Your task to perform on an android device: Open Chrome and go to settings Image 0: 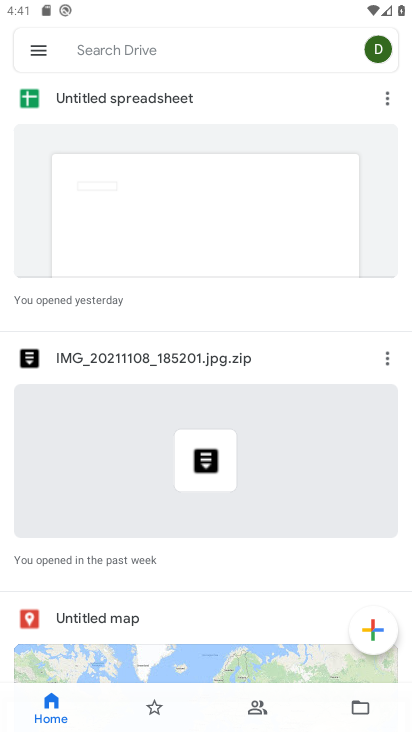
Step 0: press back button
Your task to perform on an android device: Open Chrome and go to settings Image 1: 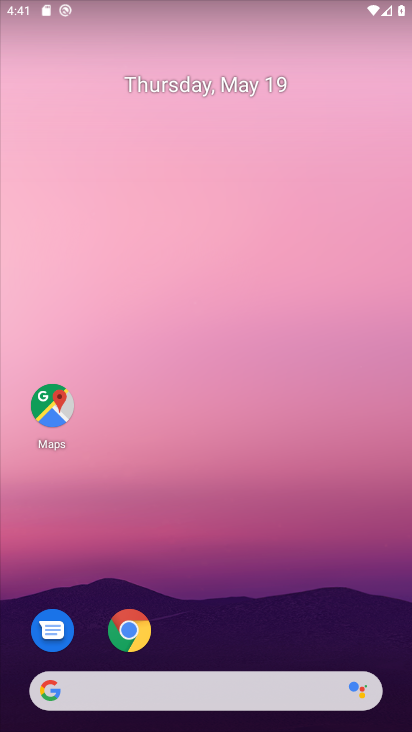
Step 1: drag from (290, 554) to (256, 28)
Your task to perform on an android device: Open Chrome and go to settings Image 2: 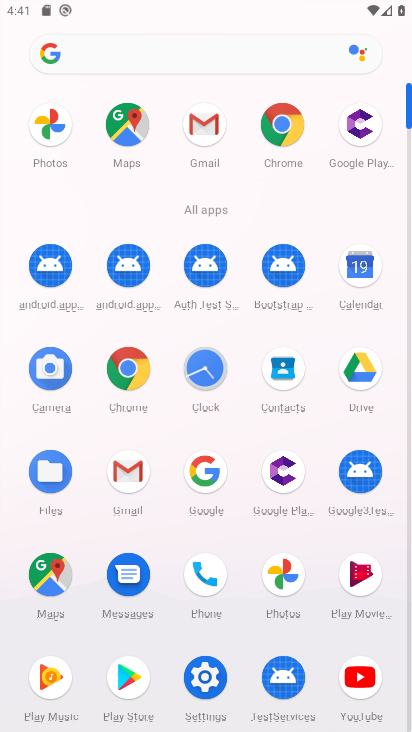
Step 2: drag from (6, 589) to (12, 259)
Your task to perform on an android device: Open Chrome and go to settings Image 3: 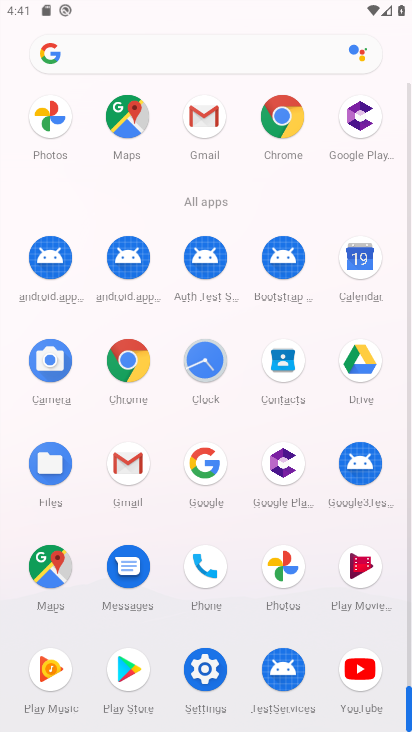
Step 3: click (282, 120)
Your task to perform on an android device: Open Chrome and go to settings Image 4: 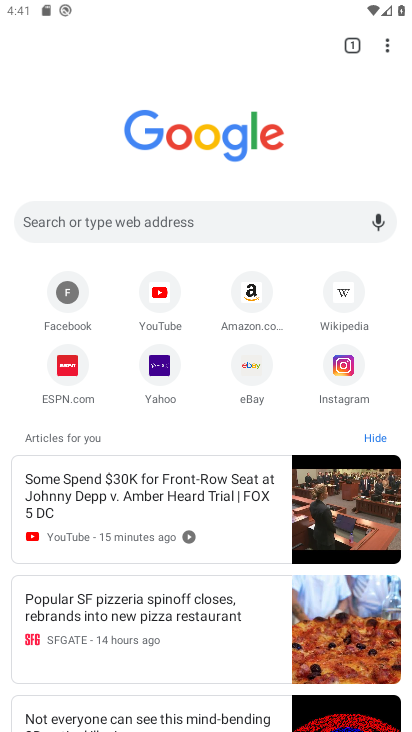
Step 4: click (381, 48)
Your task to perform on an android device: Open Chrome and go to settings Image 5: 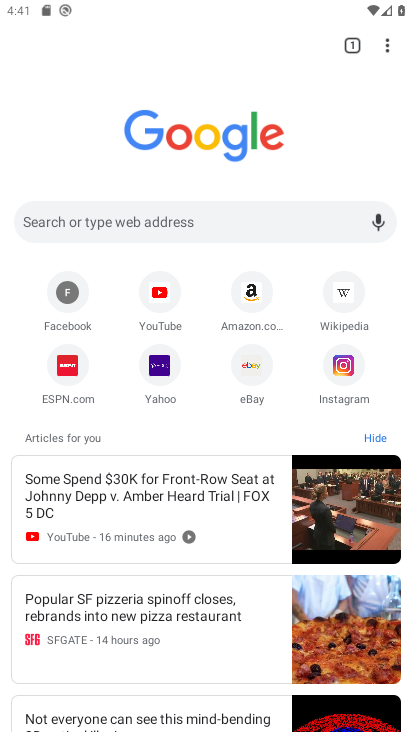
Step 5: task complete